Your task to perform on an android device: Open maps Image 0: 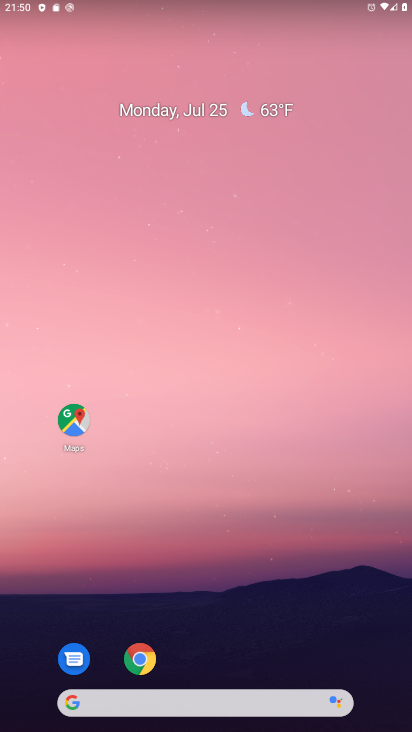
Step 0: drag from (236, 722) to (234, 56)
Your task to perform on an android device: Open maps Image 1: 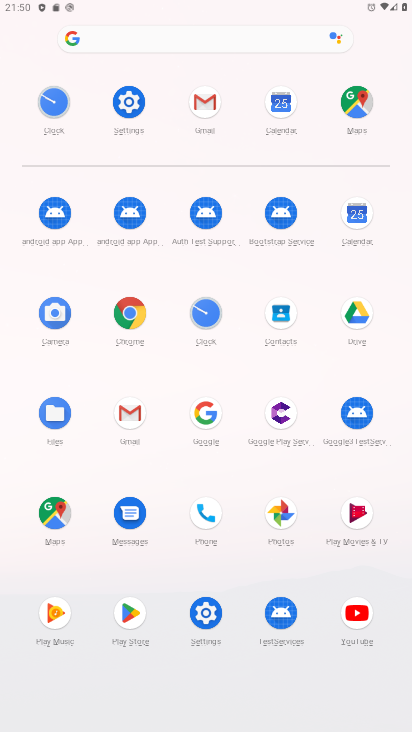
Step 1: click (52, 513)
Your task to perform on an android device: Open maps Image 2: 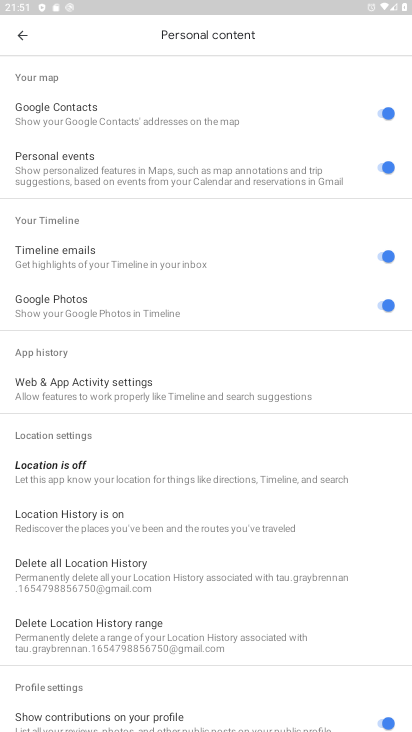
Step 2: click (24, 33)
Your task to perform on an android device: Open maps Image 3: 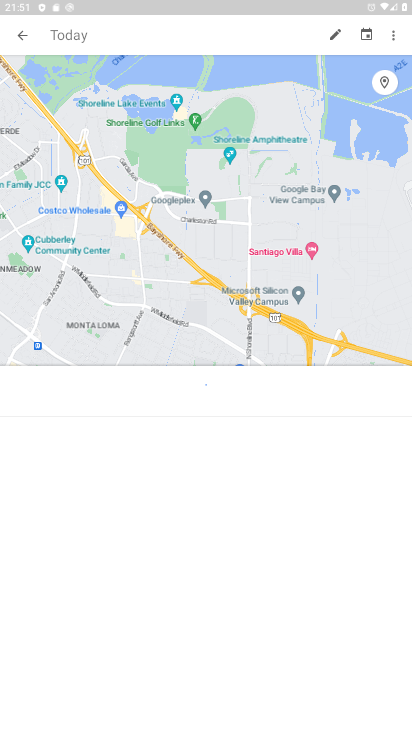
Step 3: click (23, 35)
Your task to perform on an android device: Open maps Image 4: 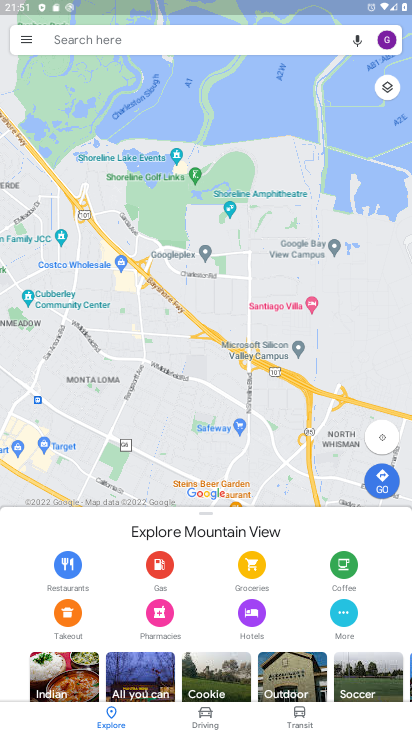
Step 4: task complete